Your task to perform on an android device: change the clock display to analog Image 0: 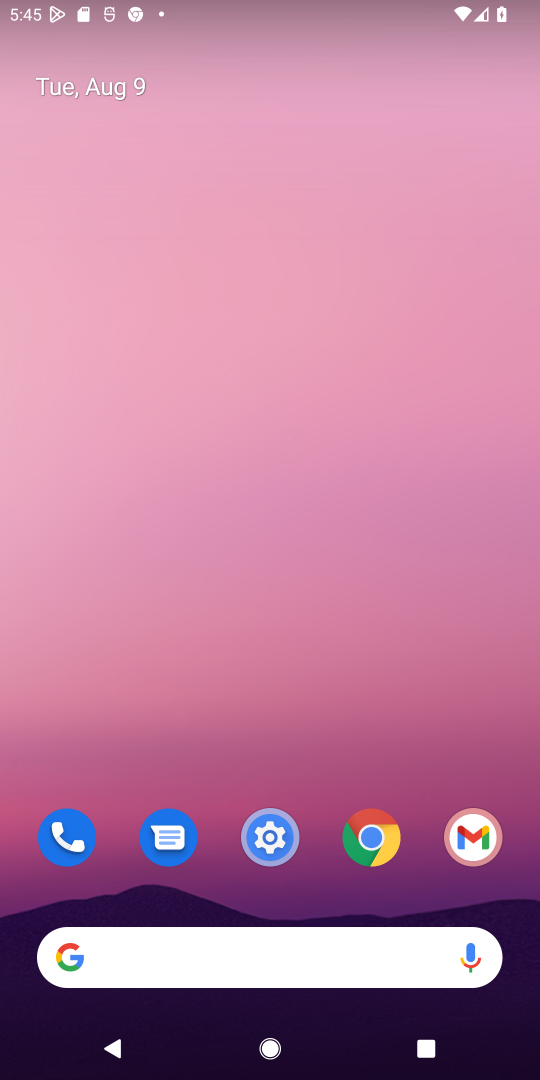
Step 0: drag from (234, 884) to (261, 143)
Your task to perform on an android device: change the clock display to analog Image 1: 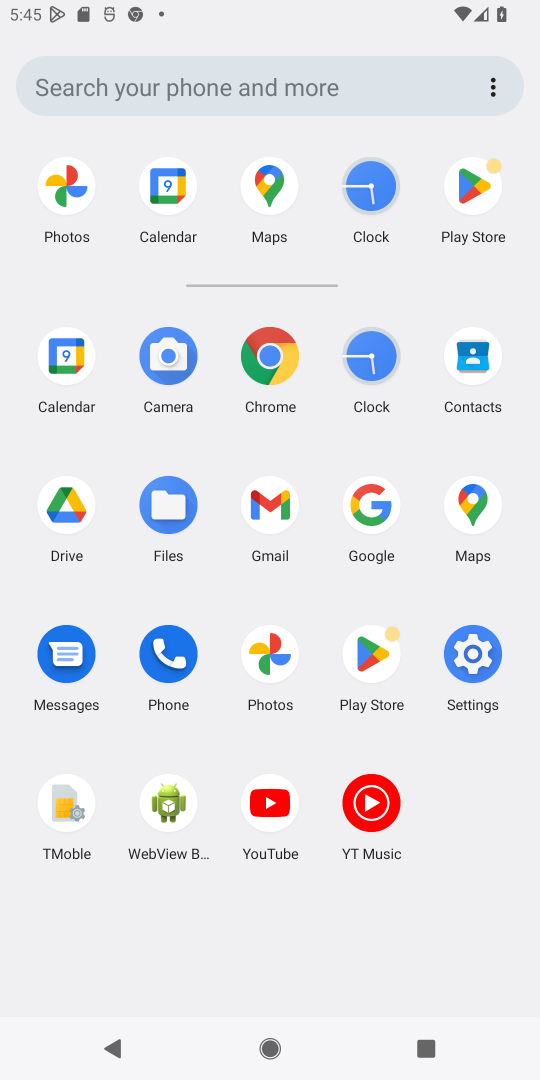
Step 1: click (380, 343)
Your task to perform on an android device: change the clock display to analog Image 2: 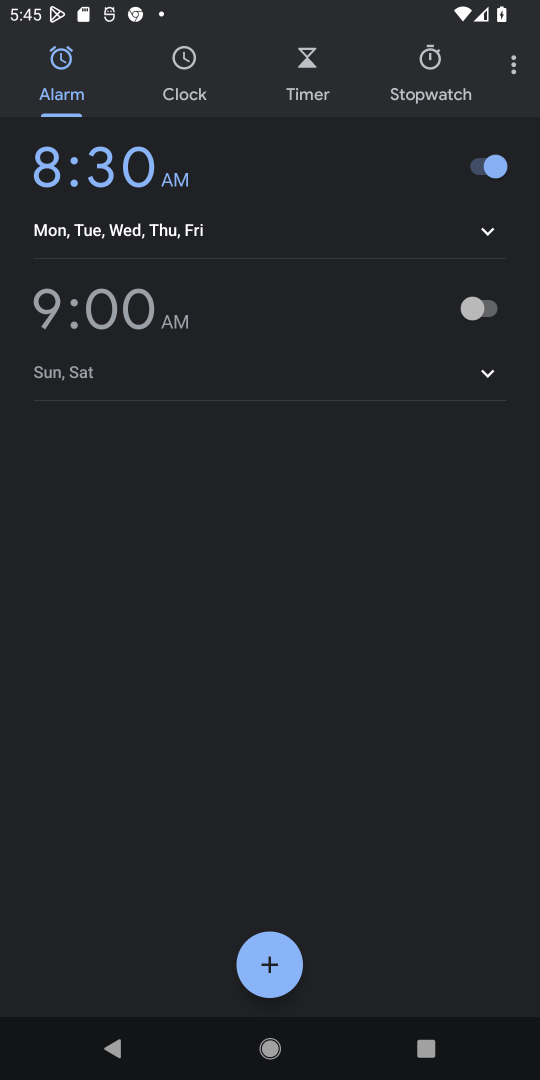
Step 2: click (498, 49)
Your task to perform on an android device: change the clock display to analog Image 3: 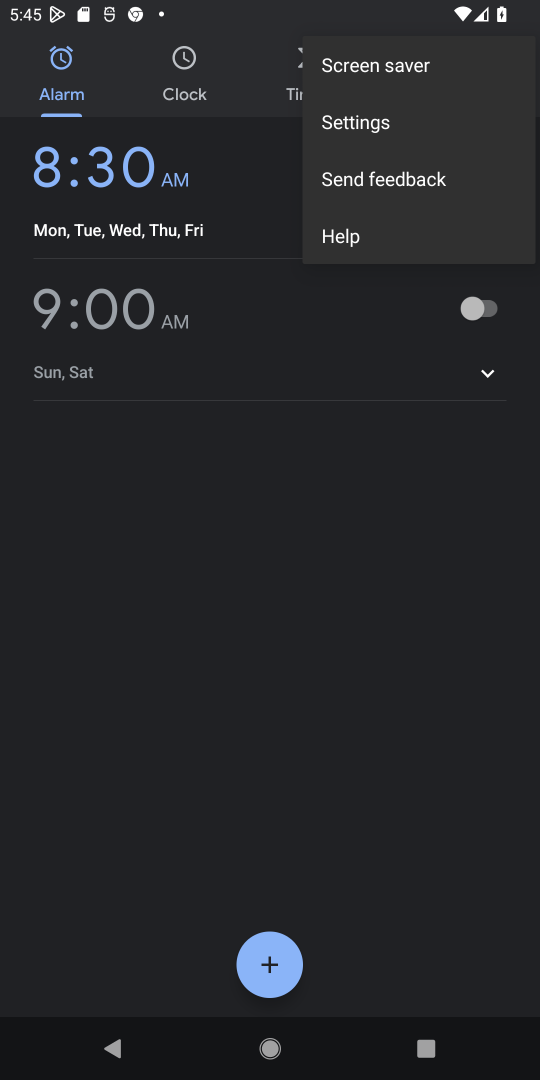
Step 3: click (329, 113)
Your task to perform on an android device: change the clock display to analog Image 4: 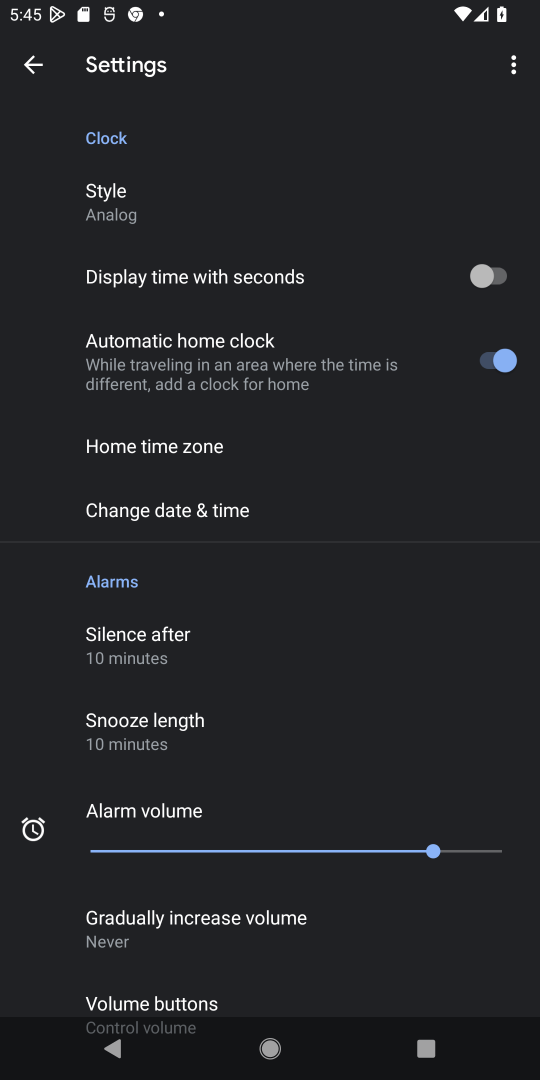
Step 4: click (106, 221)
Your task to perform on an android device: change the clock display to analog Image 5: 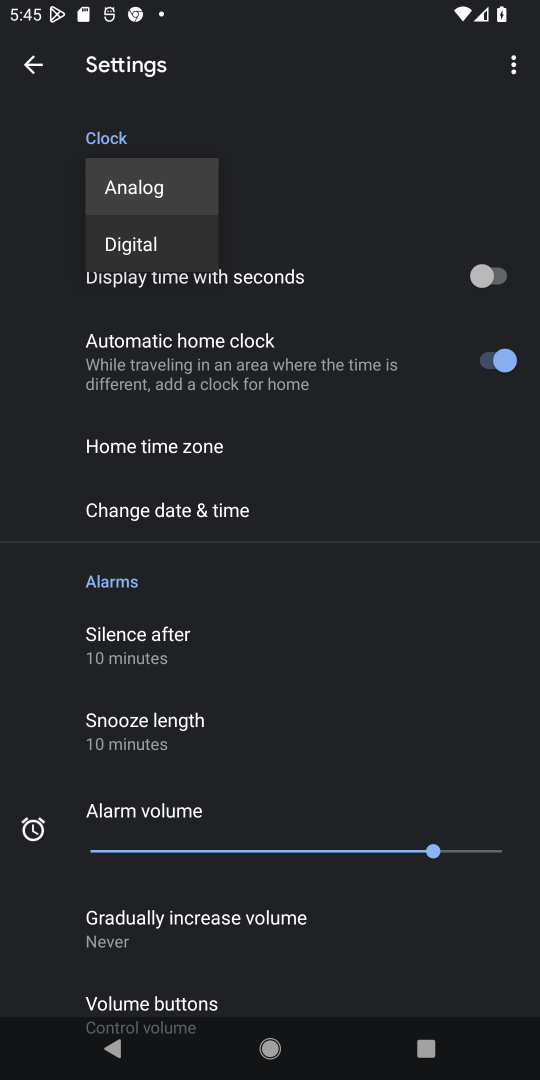
Step 5: task complete